Your task to perform on an android device: What is the news today? Image 0: 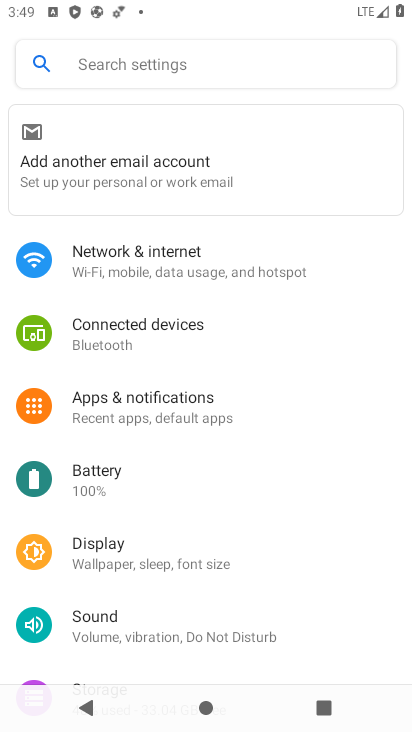
Step 0: press home button
Your task to perform on an android device: What is the news today? Image 1: 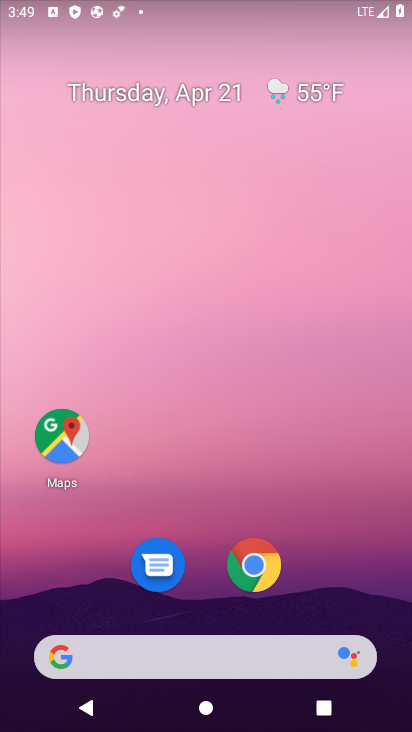
Step 1: click (59, 654)
Your task to perform on an android device: What is the news today? Image 2: 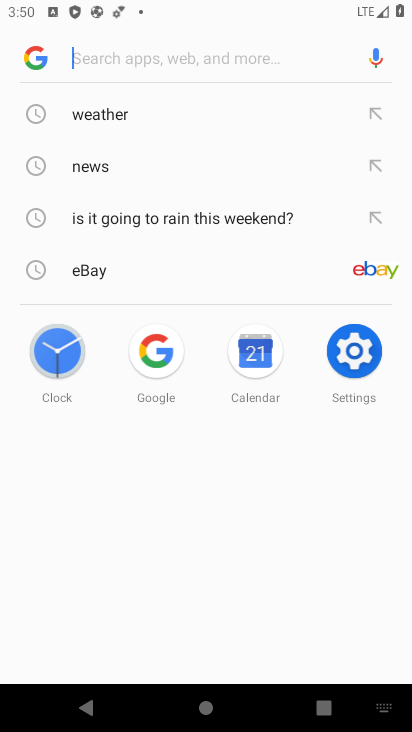
Step 2: click (87, 157)
Your task to perform on an android device: What is the news today? Image 3: 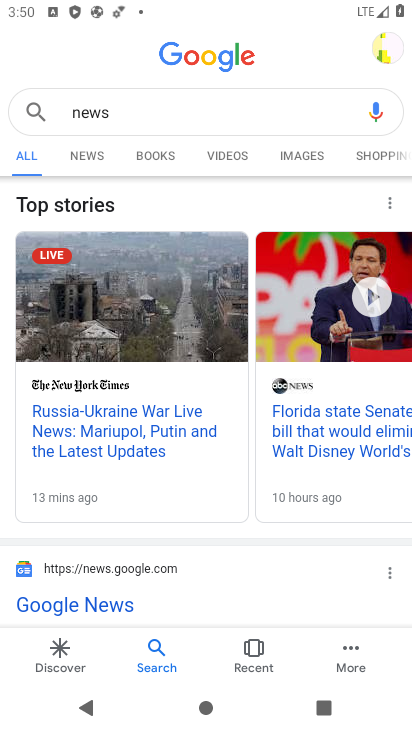
Step 3: click (99, 149)
Your task to perform on an android device: What is the news today? Image 4: 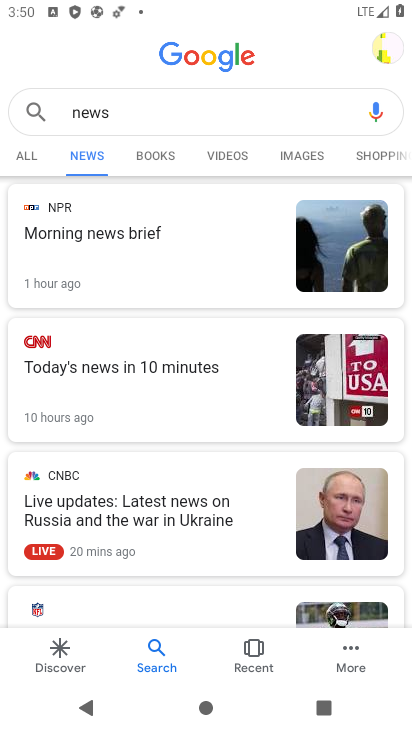
Step 4: task complete